Your task to perform on an android device: Go to network settings Image 0: 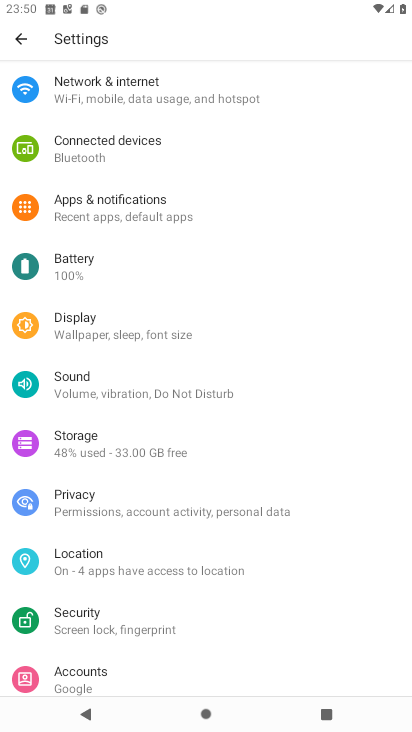
Step 0: press home button
Your task to perform on an android device: Go to network settings Image 1: 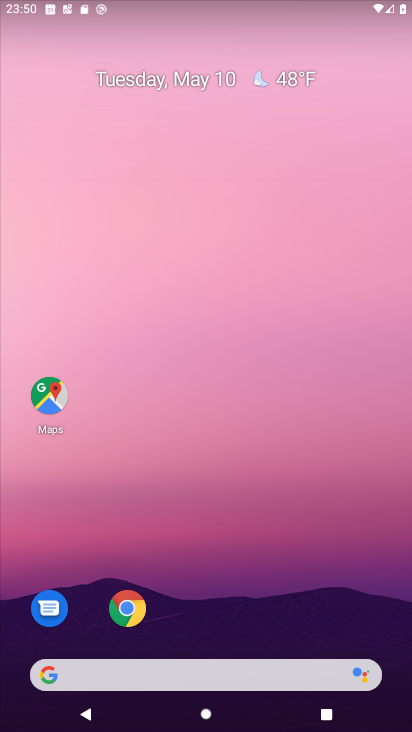
Step 1: drag from (270, 597) to (193, 229)
Your task to perform on an android device: Go to network settings Image 2: 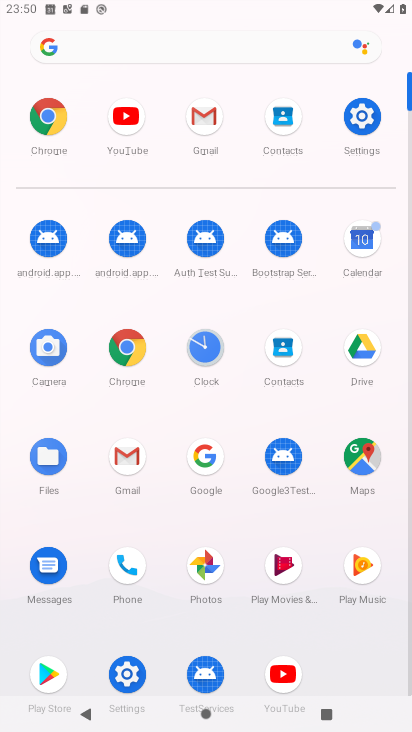
Step 2: click (363, 136)
Your task to perform on an android device: Go to network settings Image 3: 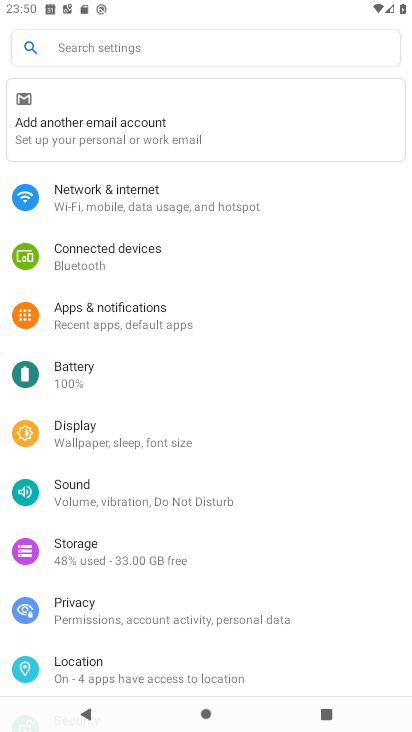
Step 3: click (231, 197)
Your task to perform on an android device: Go to network settings Image 4: 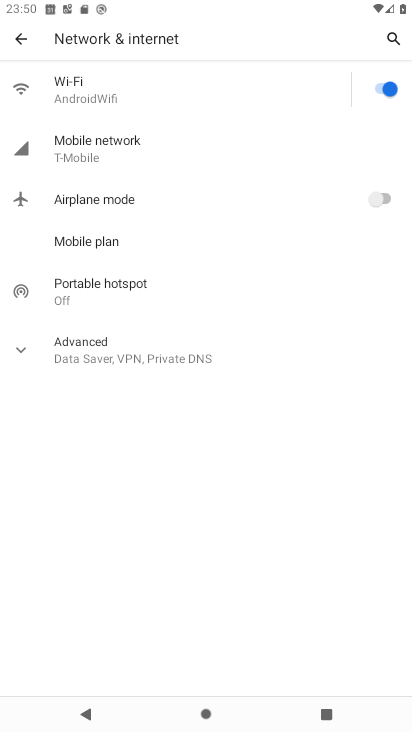
Step 4: click (180, 130)
Your task to perform on an android device: Go to network settings Image 5: 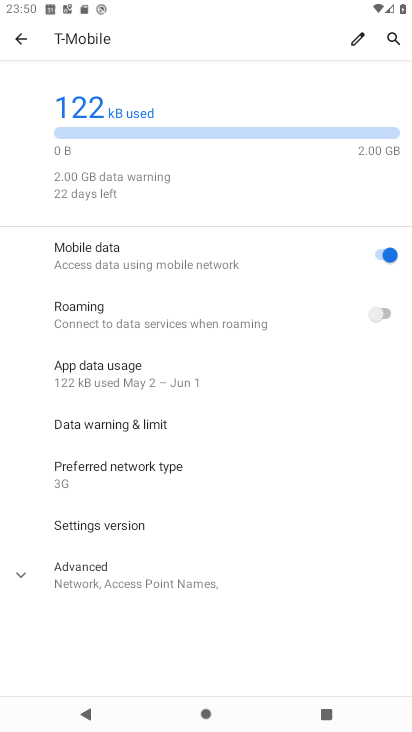
Step 5: click (116, 594)
Your task to perform on an android device: Go to network settings Image 6: 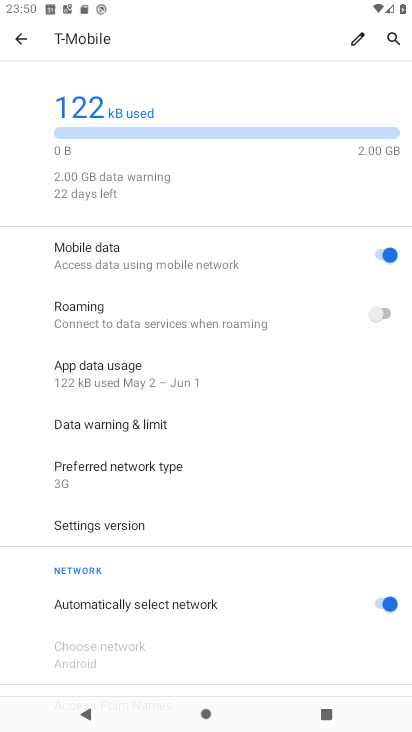
Step 6: task complete